Your task to perform on an android device: Go to wifi settings Image 0: 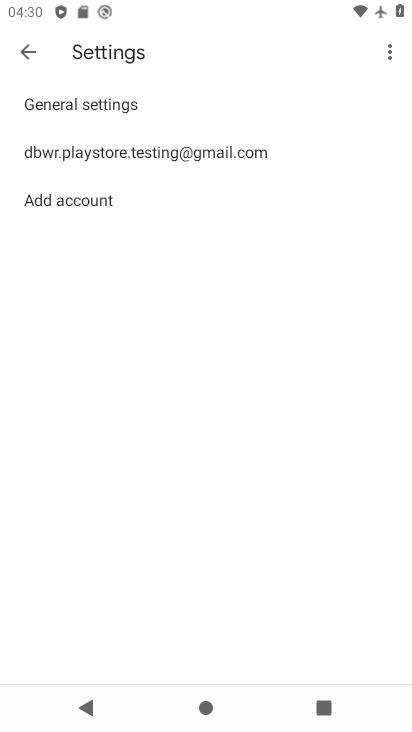
Step 0: press home button
Your task to perform on an android device: Go to wifi settings Image 1: 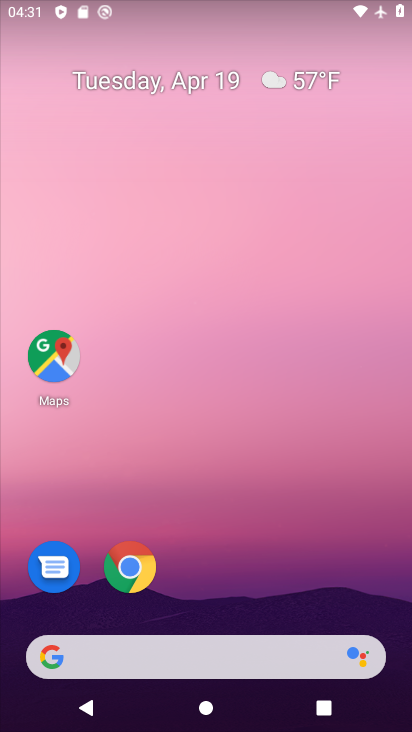
Step 1: drag from (377, 613) to (379, 142)
Your task to perform on an android device: Go to wifi settings Image 2: 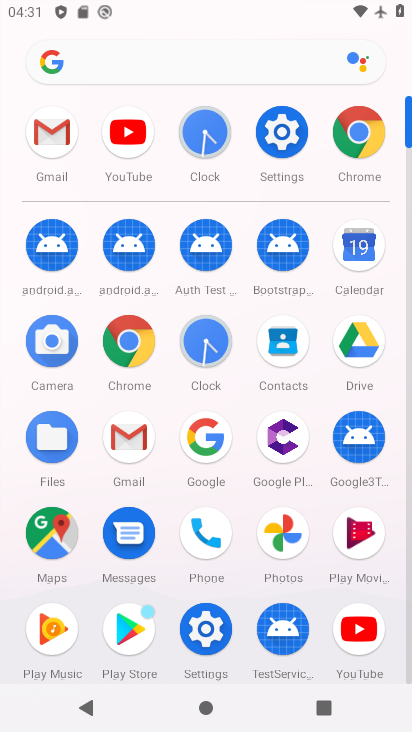
Step 2: click (285, 140)
Your task to perform on an android device: Go to wifi settings Image 3: 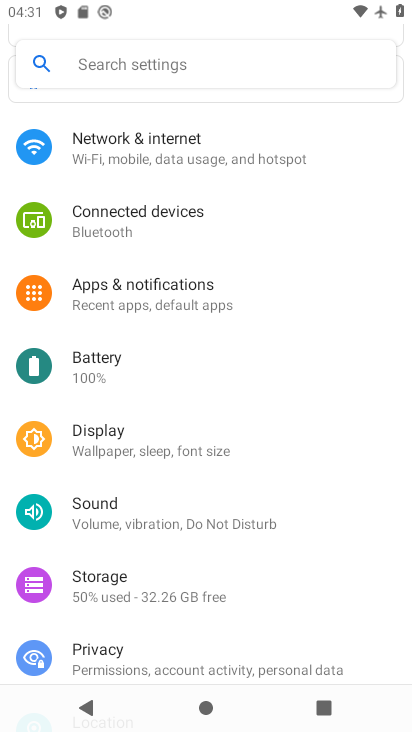
Step 3: drag from (326, 568) to (314, 434)
Your task to perform on an android device: Go to wifi settings Image 4: 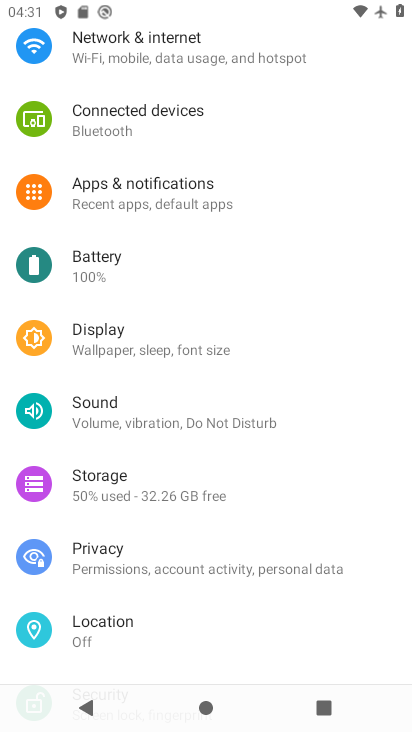
Step 4: drag from (354, 617) to (367, 488)
Your task to perform on an android device: Go to wifi settings Image 5: 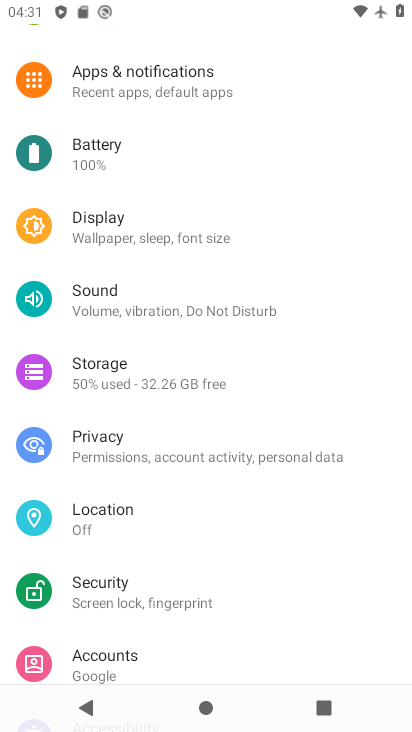
Step 5: drag from (358, 623) to (358, 488)
Your task to perform on an android device: Go to wifi settings Image 6: 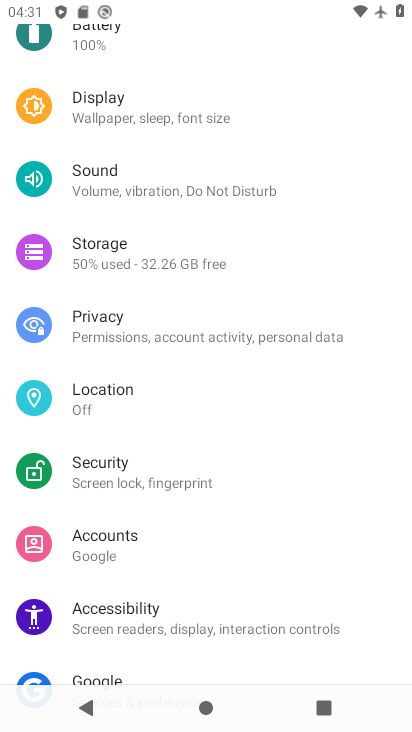
Step 6: drag from (371, 555) to (370, 469)
Your task to perform on an android device: Go to wifi settings Image 7: 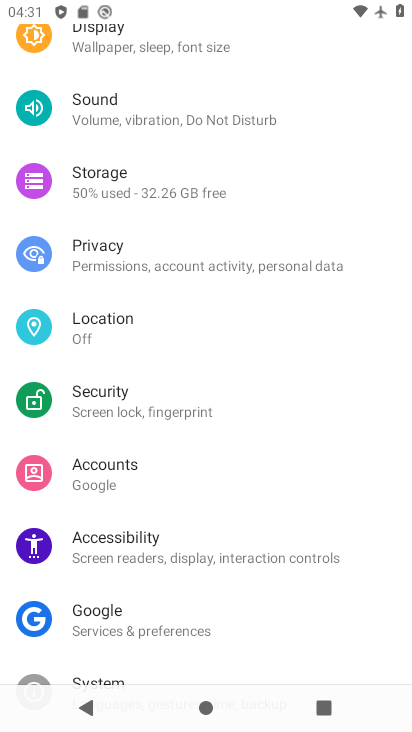
Step 7: drag from (358, 621) to (365, 434)
Your task to perform on an android device: Go to wifi settings Image 8: 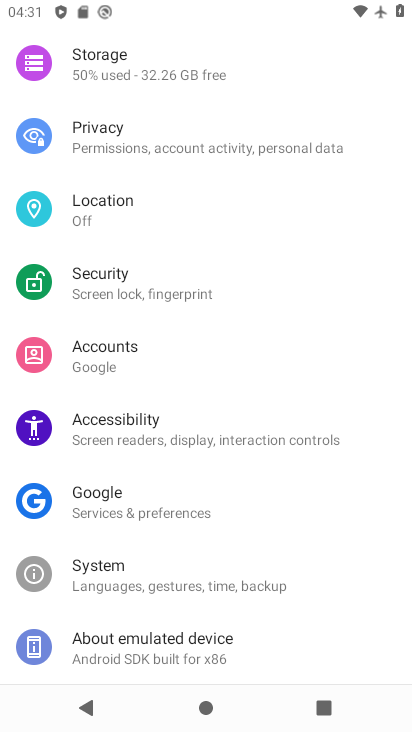
Step 8: drag from (360, 469) to (353, 550)
Your task to perform on an android device: Go to wifi settings Image 9: 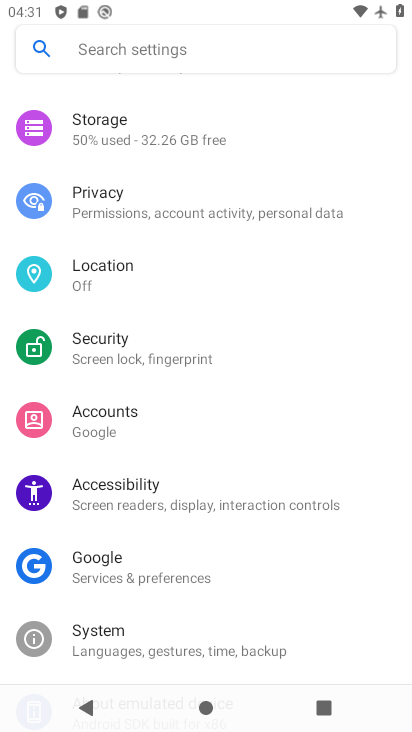
Step 9: drag from (360, 507) to (359, 587)
Your task to perform on an android device: Go to wifi settings Image 10: 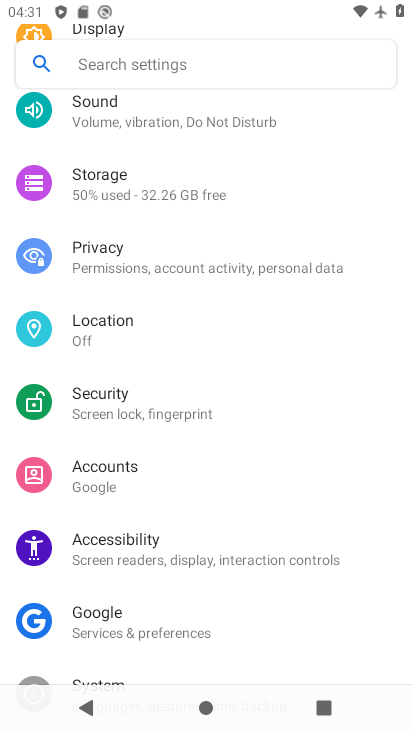
Step 10: drag from (364, 416) to (365, 579)
Your task to perform on an android device: Go to wifi settings Image 11: 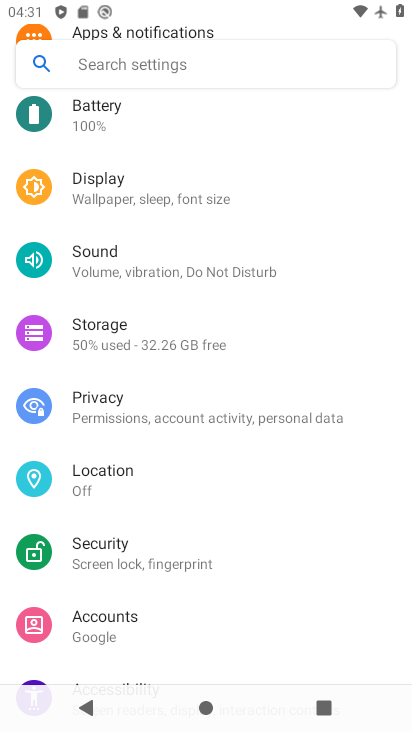
Step 11: drag from (361, 452) to (354, 583)
Your task to perform on an android device: Go to wifi settings Image 12: 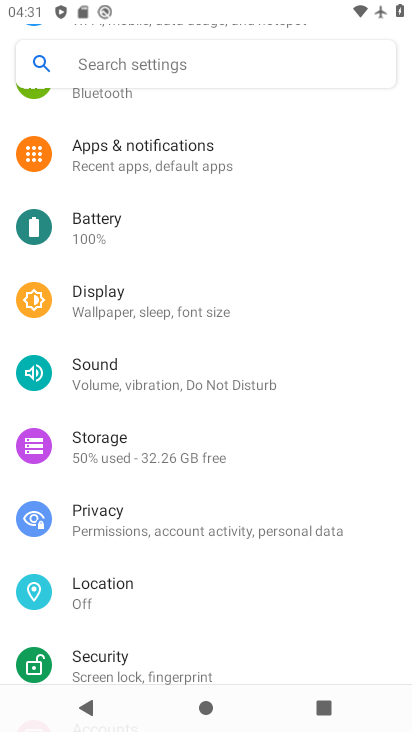
Step 12: drag from (364, 449) to (373, 573)
Your task to perform on an android device: Go to wifi settings Image 13: 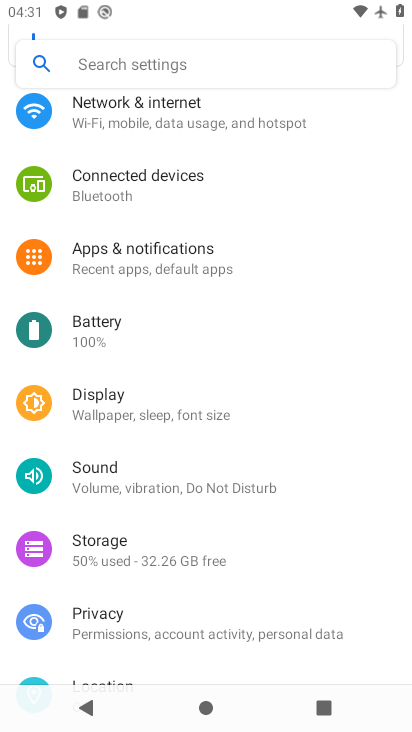
Step 13: drag from (371, 444) to (365, 576)
Your task to perform on an android device: Go to wifi settings Image 14: 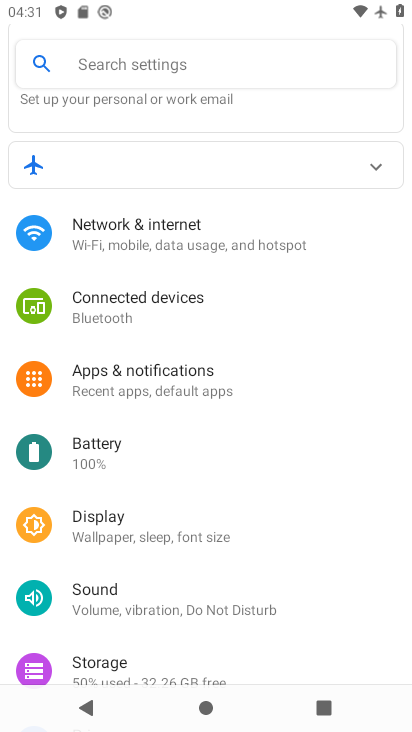
Step 14: drag from (355, 417) to (361, 520)
Your task to perform on an android device: Go to wifi settings Image 15: 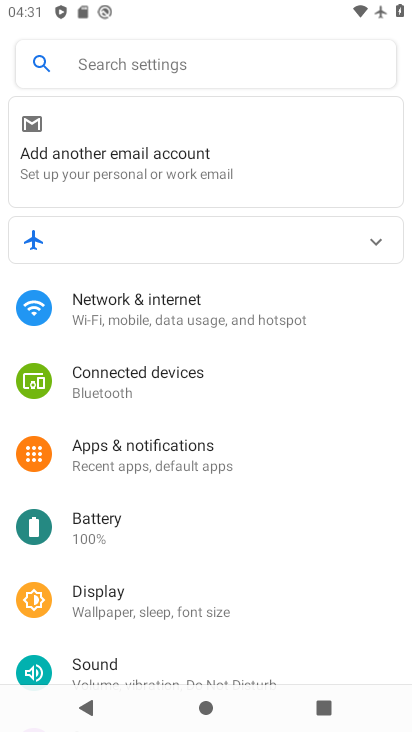
Step 15: drag from (355, 365) to (350, 524)
Your task to perform on an android device: Go to wifi settings Image 16: 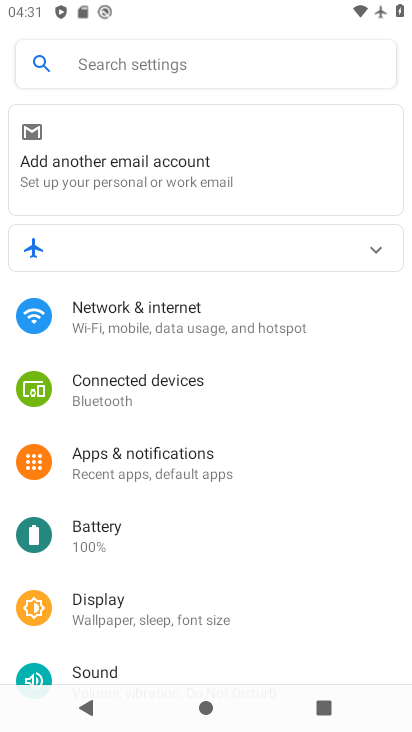
Step 16: click (267, 329)
Your task to perform on an android device: Go to wifi settings Image 17: 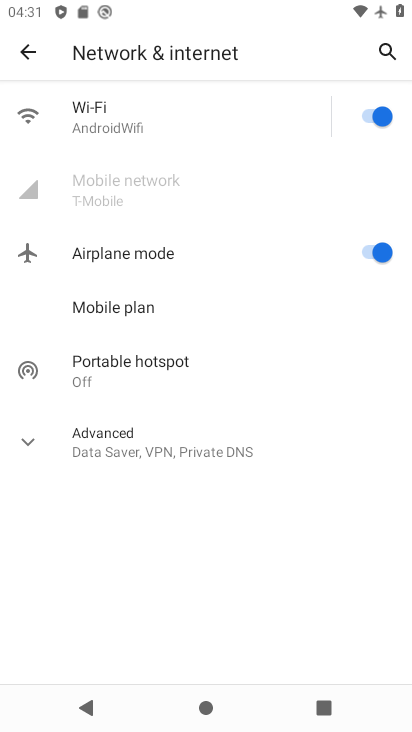
Step 17: click (133, 123)
Your task to perform on an android device: Go to wifi settings Image 18: 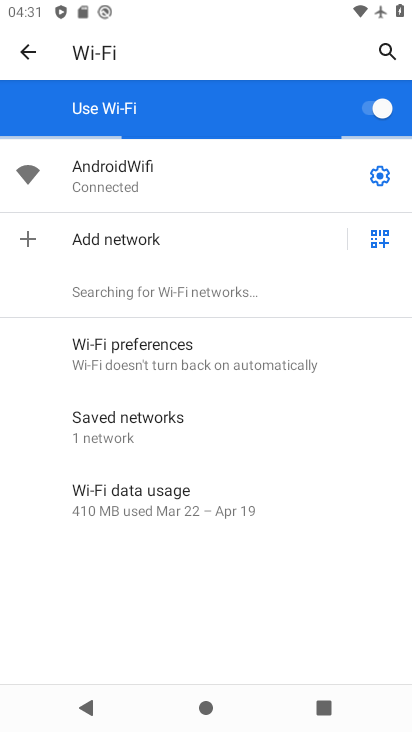
Step 18: task complete